Your task to perform on an android device: turn off smart reply in the gmail app Image 0: 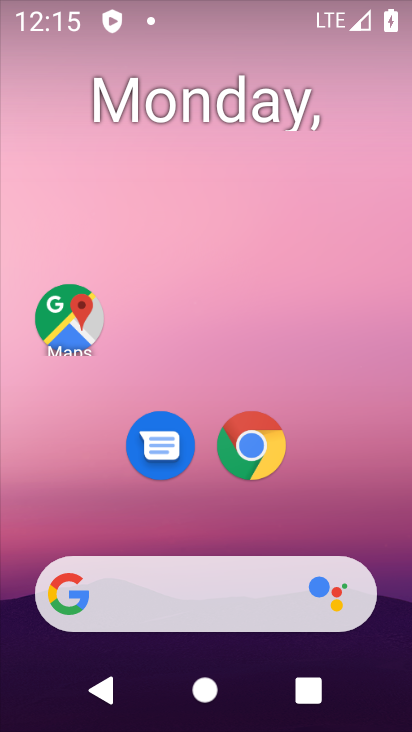
Step 0: drag from (187, 557) to (120, 13)
Your task to perform on an android device: turn off smart reply in the gmail app Image 1: 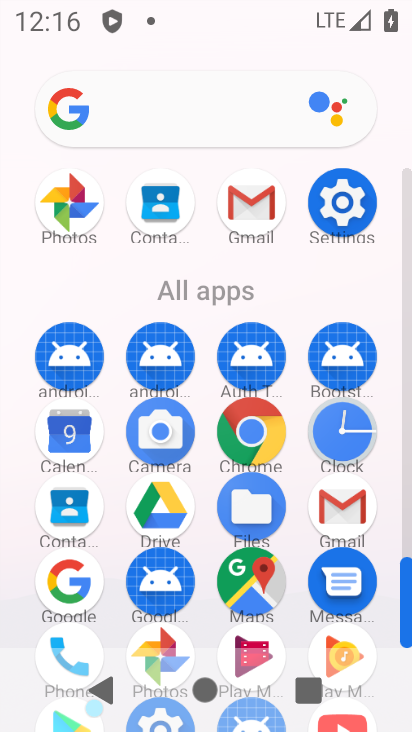
Step 1: click (344, 516)
Your task to perform on an android device: turn off smart reply in the gmail app Image 2: 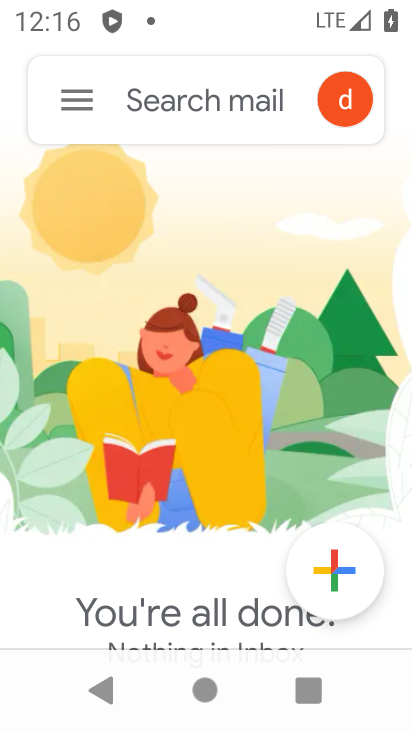
Step 2: click (74, 120)
Your task to perform on an android device: turn off smart reply in the gmail app Image 3: 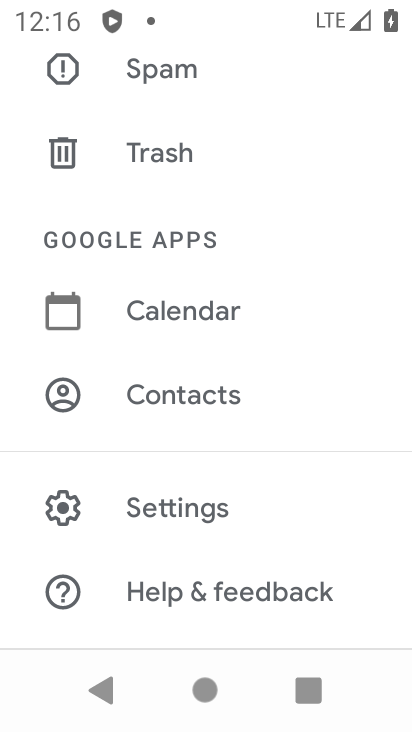
Step 3: click (223, 515)
Your task to perform on an android device: turn off smart reply in the gmail app Image 4: 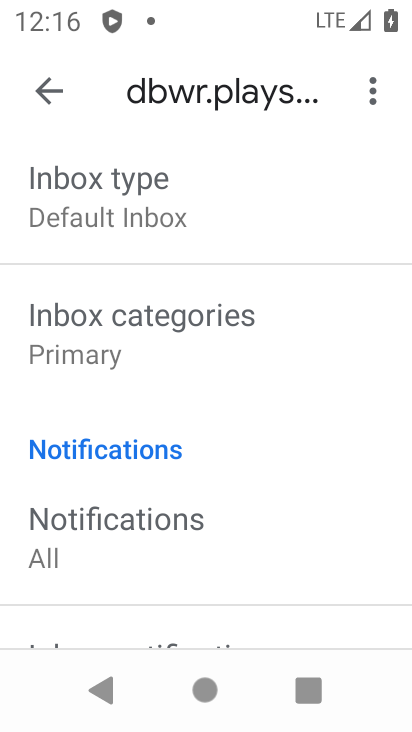
Step 4: drag from (234, 585) to (308, 351)
Your task to perform on an android device: turn off smart reply in the gmail app Image 5: 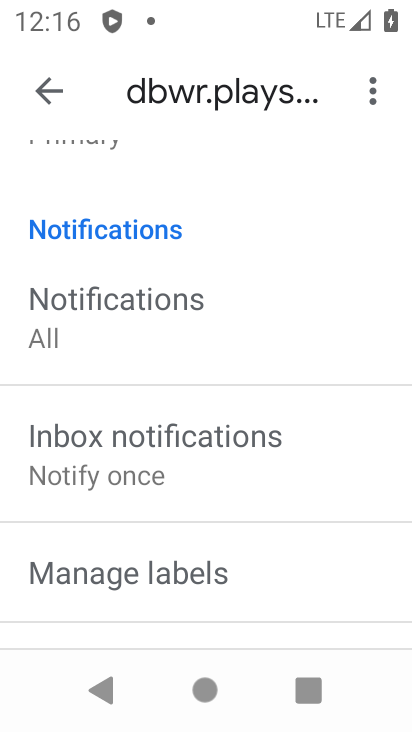
Step 5: drag from (224, 582) to (300, 366)
Your task to perform on an android device: turn off smart reply in the gmail app Image 6: 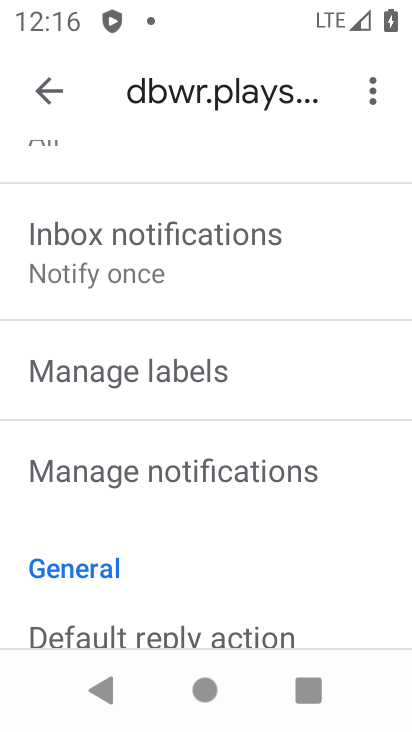
Step 6: drag from (191, 640) to (254, 463)
Your task to perform on an android device: turn off smart reply in the gmail app Image 7: 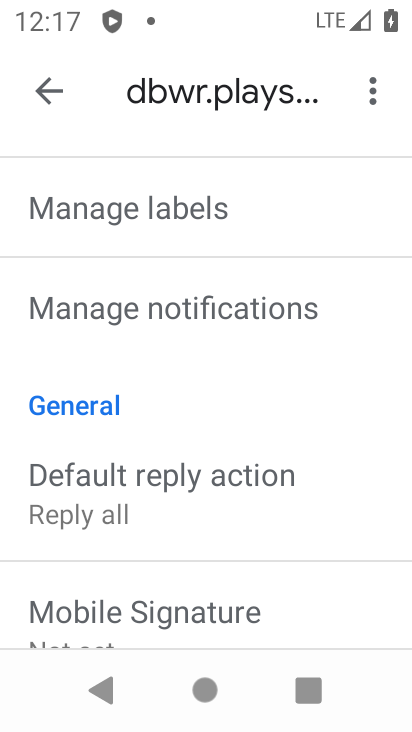
Step 7: drag from (199, 598) to (263, 371)
Your task to perform on an android device: turn off smart reply in the gmail app Image 8: 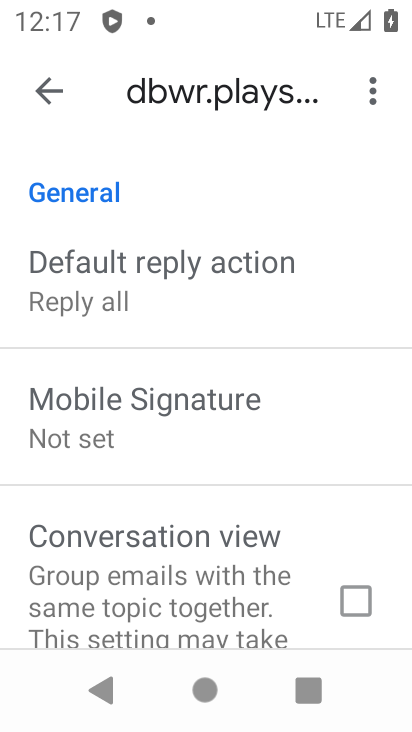
Step 8: drag from (217, 490) to (282, 319)
Your task to perform on an android device: turn off smart reply in the gmail app Image 9: 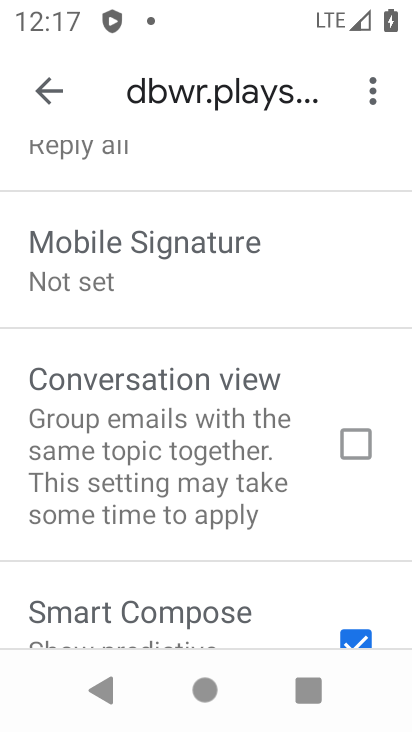
Step 9: drag from (219, 495) to (269, 286)
Your task to perform on an android device: turn off smart reply in the gmail app Image 10: 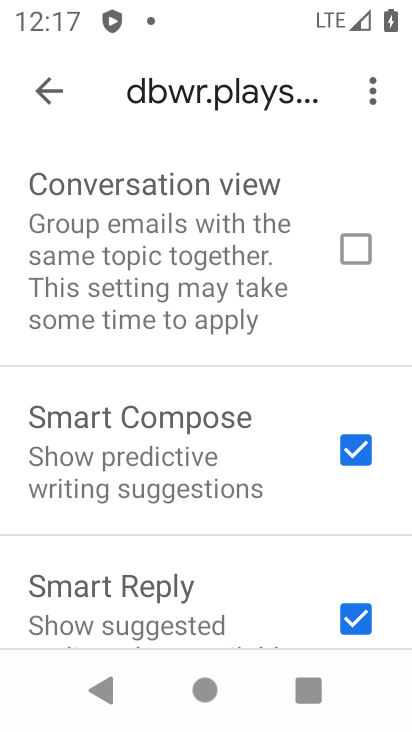
Step 10: click (361, 606)
Your task to perform on an android device: turn off smart reply in the gmail app Image 11: 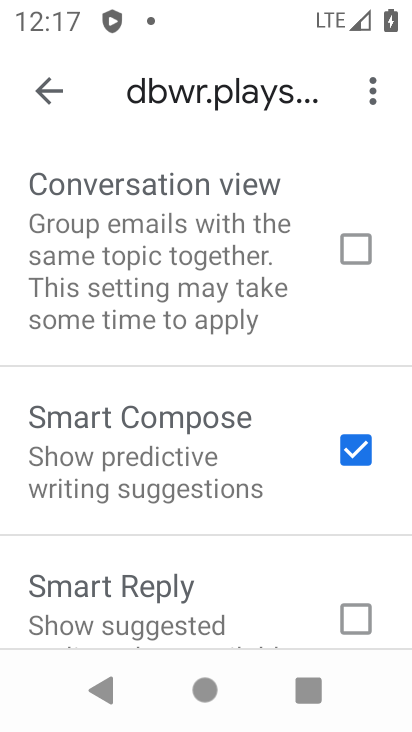
Step 11: task complete